Your task to perform on an android device: turn on notifications settings in the gmail app Image 0: 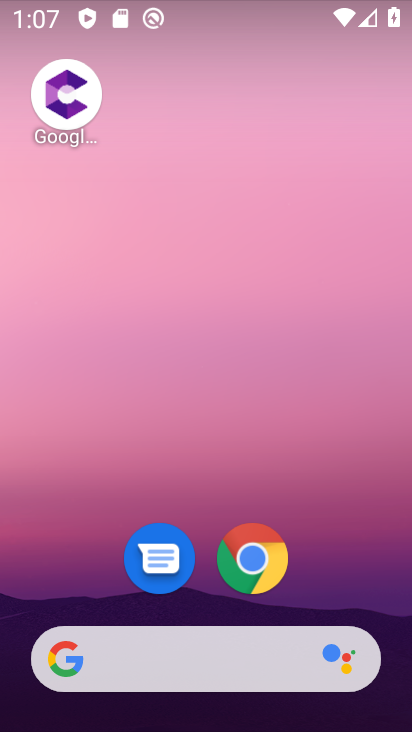
Step 0: drag from (38, 599) to (348, 125)
Your task to perform on an android device: turn on notifications settings in the gmail app Image 1: 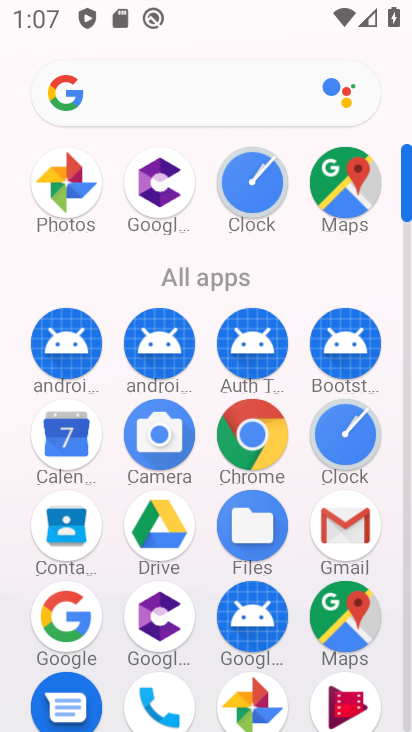
Step 1: click (335, 536)
Your task to perform on an android device: turn on notifications settings in the gmail app Image 2: 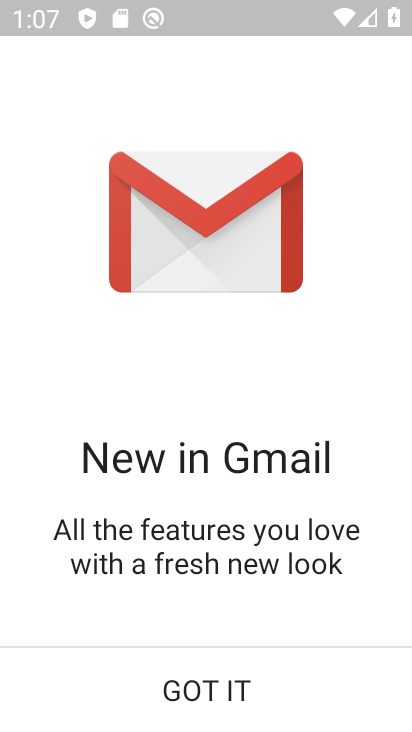
Step 2: click (141, 680)
Your task to perform on an android device: turn on notifications settings in the gmail app Image 3: 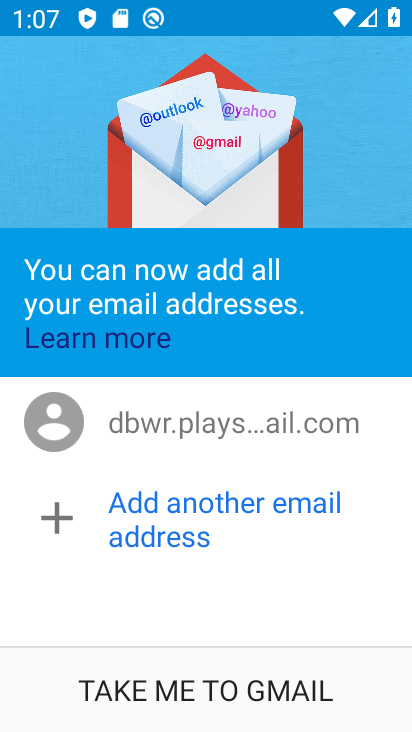
Step 3: click (204, 690)
Your task to perform on an android device: turn on notifications settings in the gmail app Image 4: 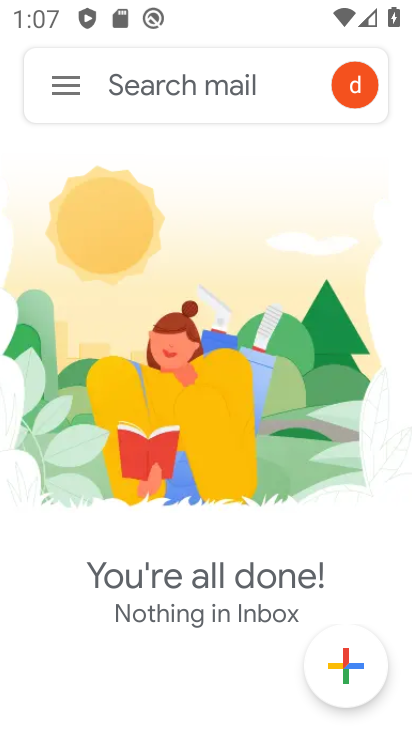
Step 4: click (55, 73)
Your task to perform on an android device: turn on notifications settings in the gmail app Image 5: 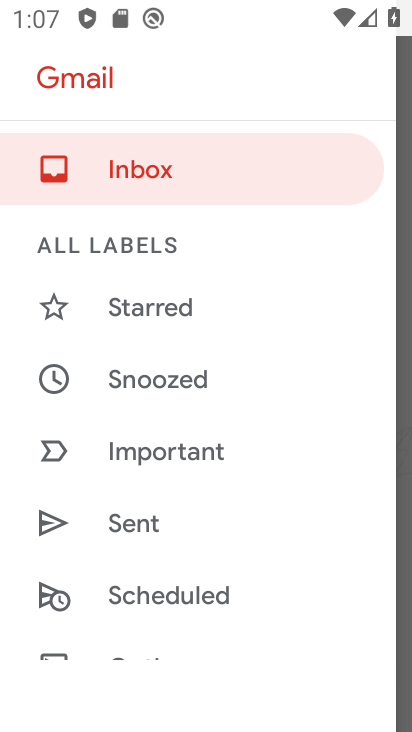
Step 5: drag from (83, 377) to (270, 76)
Your task to perform on an android device: turn on notifications settings in the gmail app Image 6: 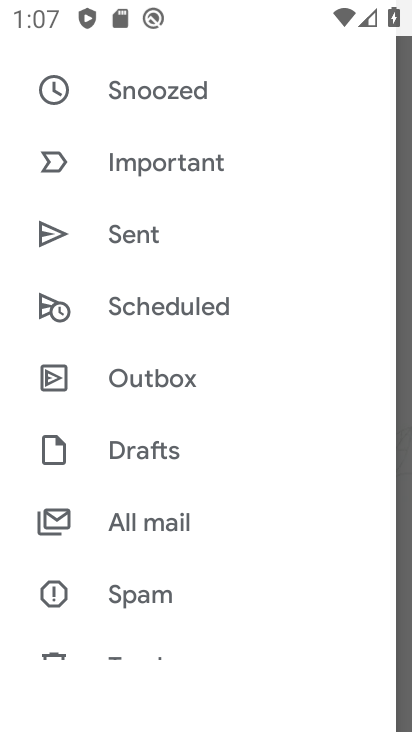
Step 6: drag from (17, 618) to (300, 147)
Your task to perform on an android device: turn on notifications settings in the gmail app Image 7: 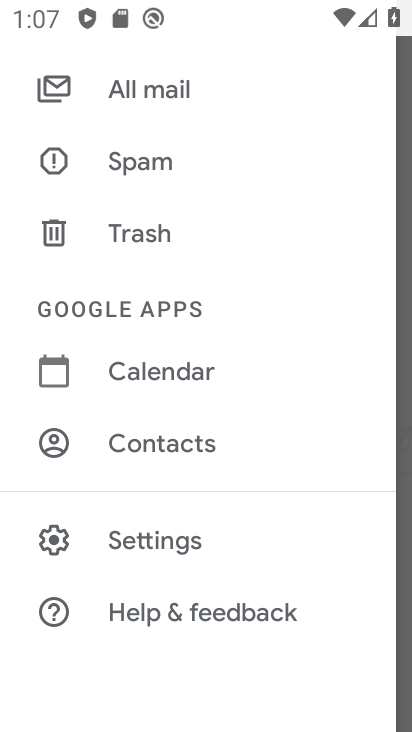
Step 7: click (119, 538)
Your task to perform on an android device: turn on notifications settings in the gmail app Image 8: 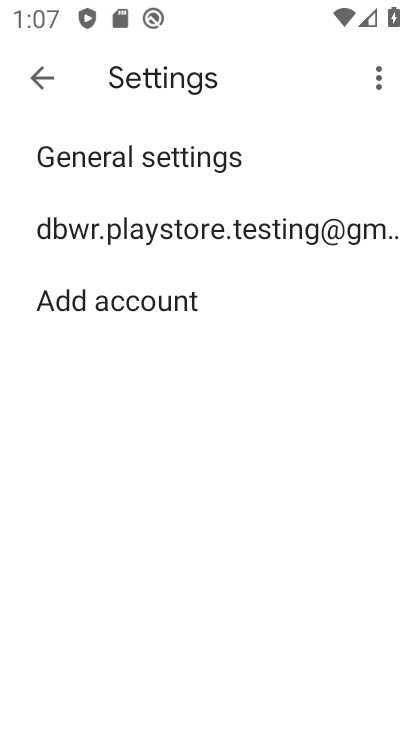
Step 8: click (106, 235)
Your task to perform on an android device: turn on notifications settings in the gmail app Image 9: 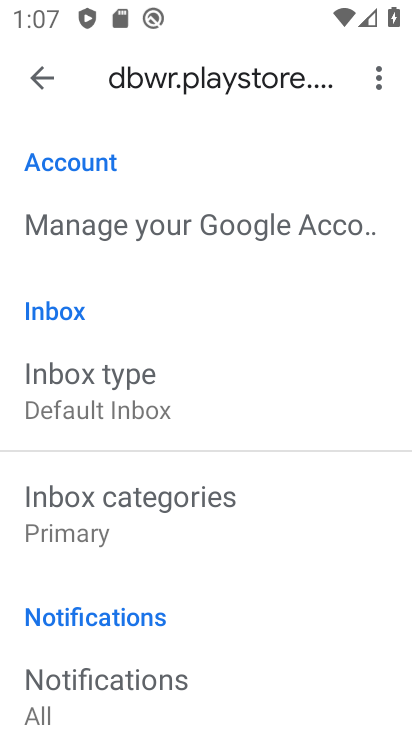
Step 9: drag from (30, 572) to (273, 198)
Your task to perform on an android device: turn on notifications settings in the gmail app Image 10: 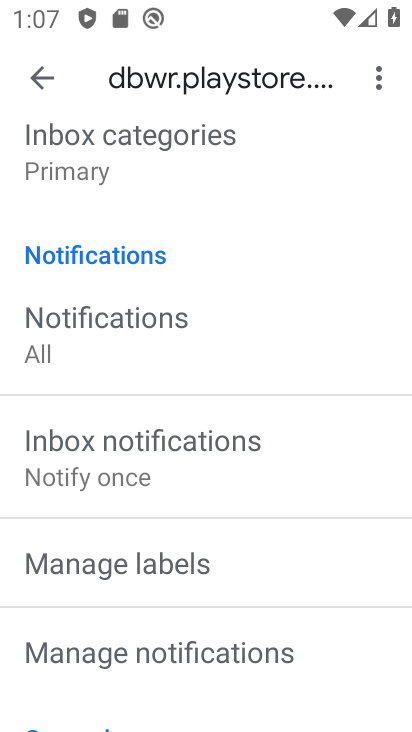
Step 10: click (85, 655)
Your task to perform on an android device: turn on notifications settings in the gmail app Image 11: 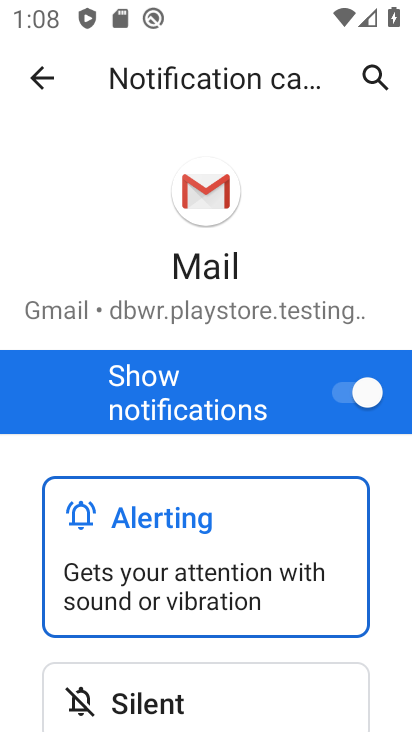
Step 11: task complete